Your task to perform on an android device: check google app version Image 0: 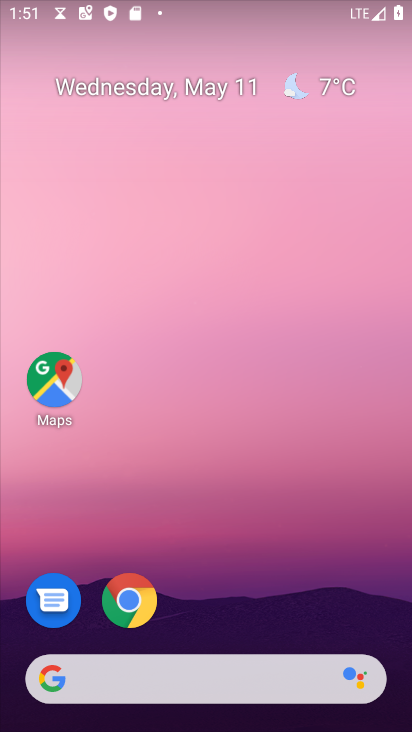
Step 0: drag from (269, 556) to (184, 90)
Your task to perform on an android device: check google app version Image 1: 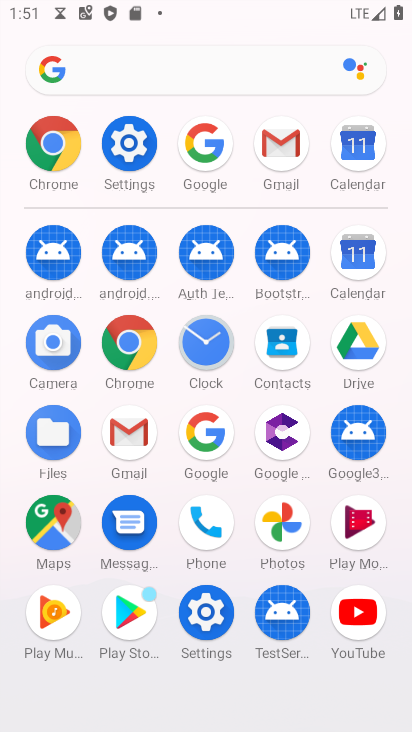
Step 1: click (211, 436)
Your task to perform on an android device: check google app version Image 2: 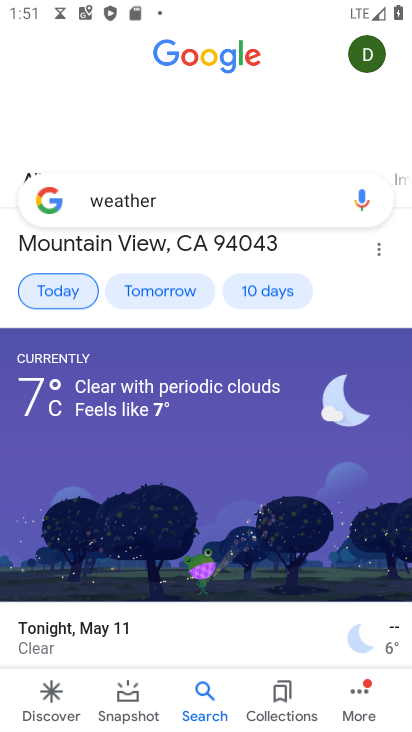
Step 2: click (363, 704)
Your task to perform on an android device: check google app version Image 3: 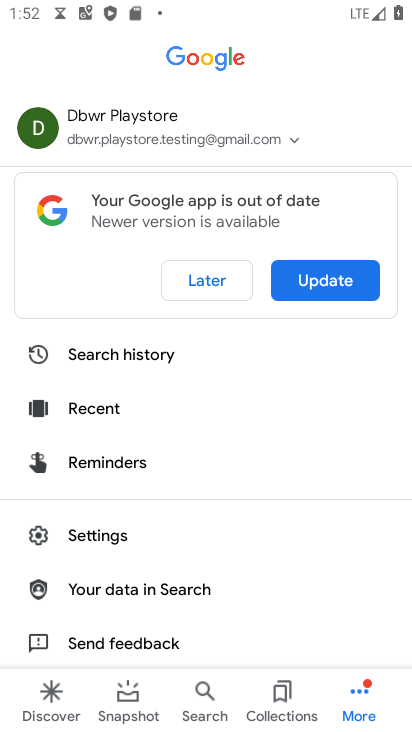
Step 3: click (135, 530)
Your task to perform on an android device: check google app version Image 4: 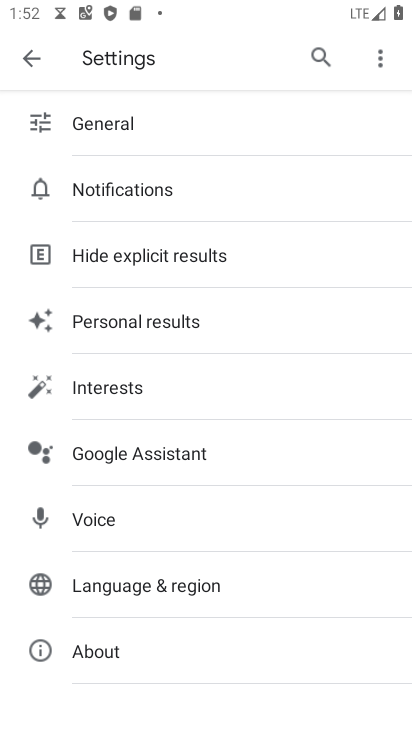
Step 4: click (149, 652)
Your task to perform on an android device: check google app version Image 5: 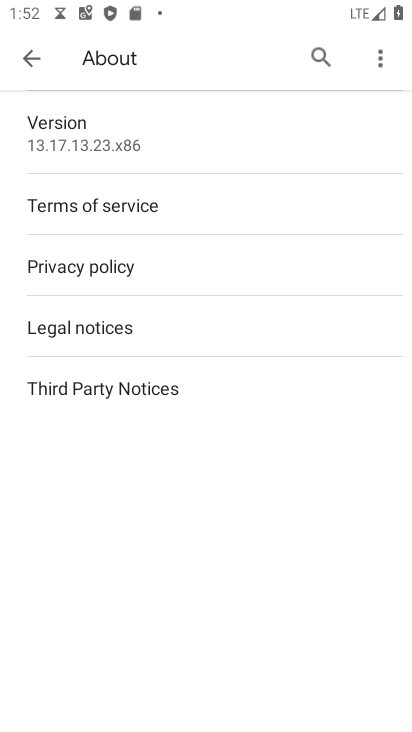
Step 5: task complete